Your task to perform on an android device: turn pop-ups off in chrome Image 0: 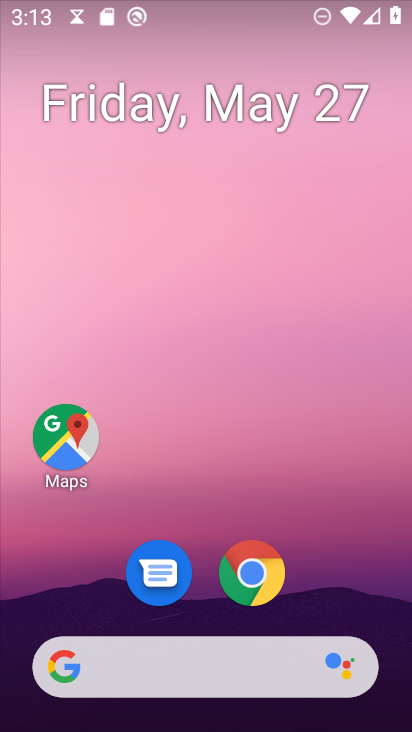
Step 0: click (261, 560)
Your task to perform on an android device: turn pop-ups off in chrome Image 1: 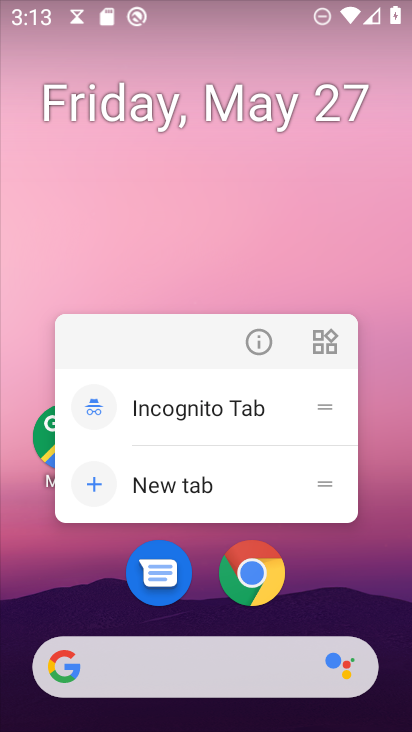
Step 1: click (241, 578)
Your task to perform on an android device: turn pop-ups off in chrome Image 2: 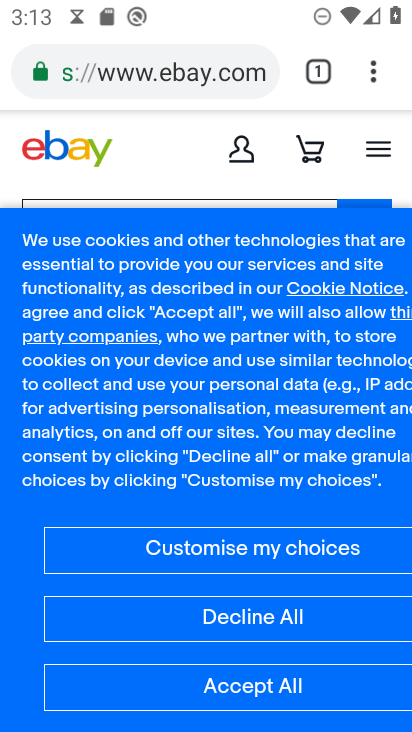
Step 2: click (366, 73)
Your task to perform on an android device: turn pop-ups off in chrome Image 3: 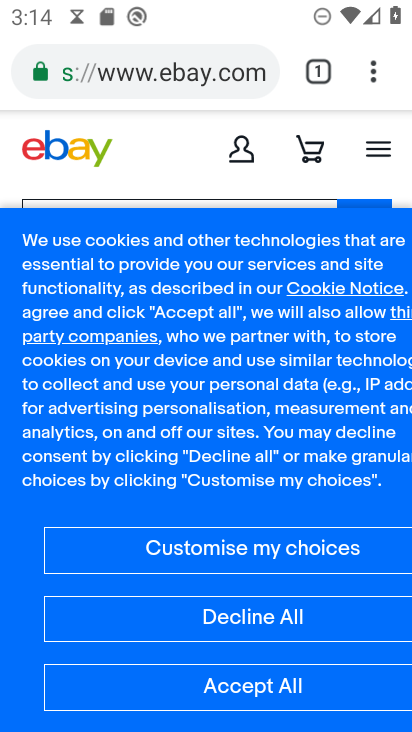
Step 3: click (366, 78)
Your task to perform on an android device: turn pop-ups off in chrome Image 4: 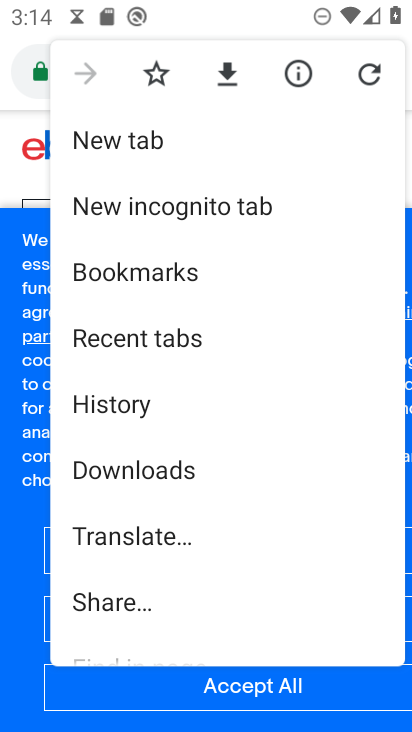
Step 4: drag from (154, 530) to (154, 225)
Your task to perform on an android device: turn pop-ups off in chrome Image 5: 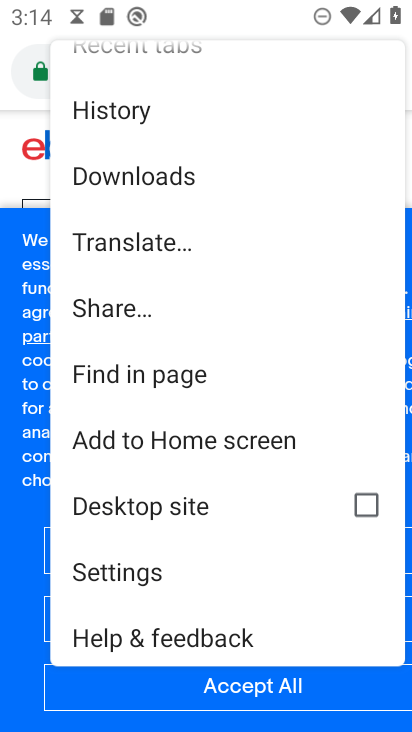
Step 5: click (147, 562)
Your task to perform on an android device: turn pop-ups off in chrome Image 6: 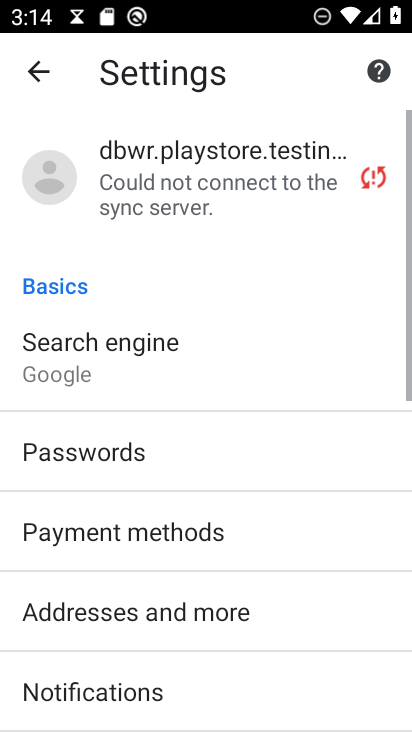
Step 6: drag from (136, 543) to (136, 210)
Your task to perform on an android device: turn pop-ups off in chrome Image 7: 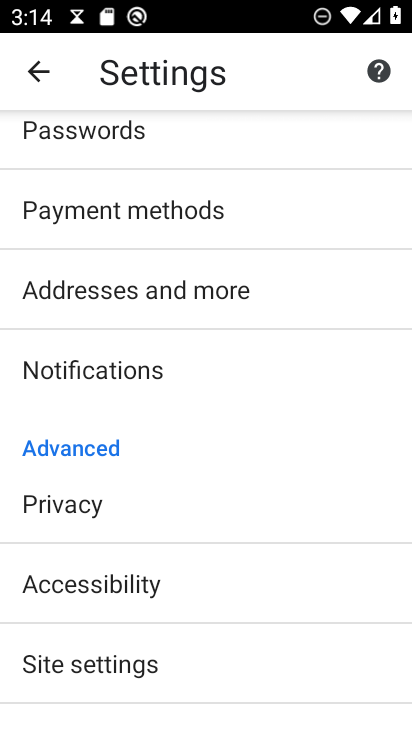
Step 7: click (95, 643)
Your task to perform on an android device: turn pop-ups off in chrome Image 8: 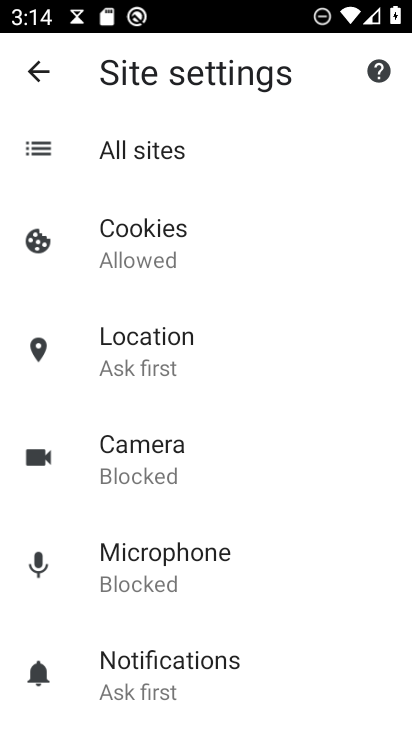
Step 8: drag from (197, 621) to (134, 192)
Your task to perform on an android device: turn pop-ups off in chrome Image 9: 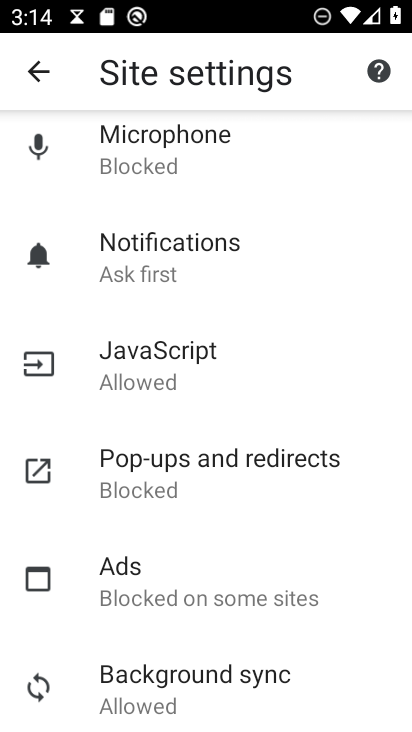
Step 9: click (236, 457)
Your task to perform on an android device: turn pop-ups off in chrome Image 10: 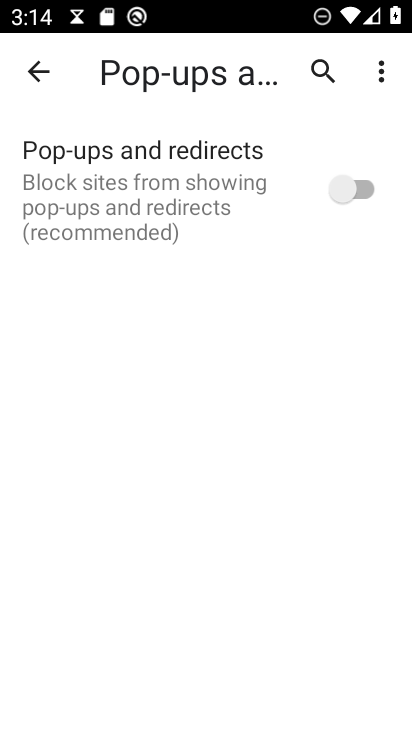
Step 10: task complete